Your task to perform on an android device: toggle pop-ups in chrome Image 0: 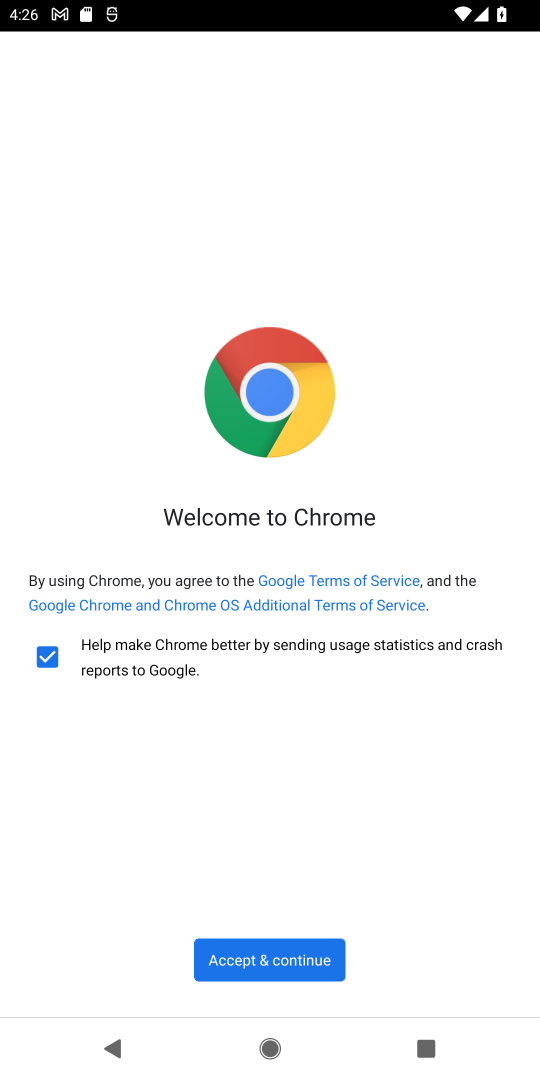
Step 0: click (295, 951)
Your task to perform on an android device: toggle pop-ups in chrome Image 1: 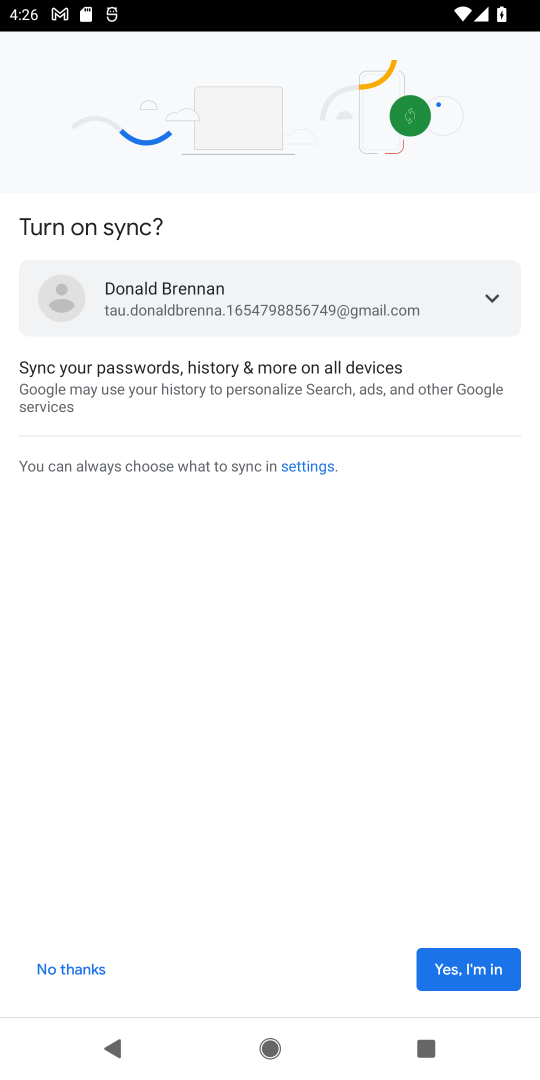
Step 1: click (456, 979)
Your task to perform on an android device: toggle pop-ups in chrome Image 2: 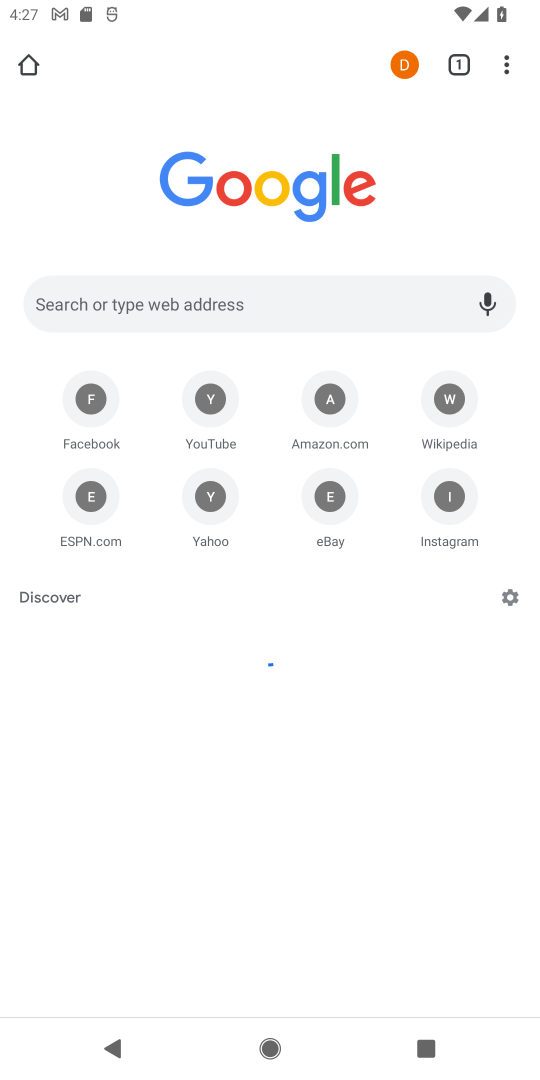
Step 2: click (504, 54)
Your task to perform on an android device: toggle pop-ups in chrome Image 3: 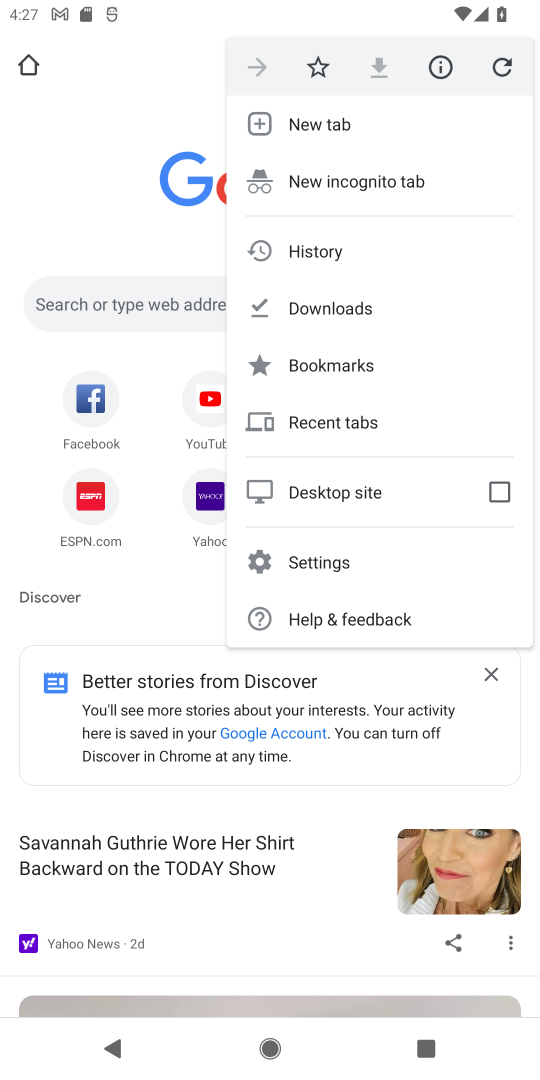
Step 3: click (284, 555)
Your task to perform on an android device: toggle pop-ups in chrome Image 4: 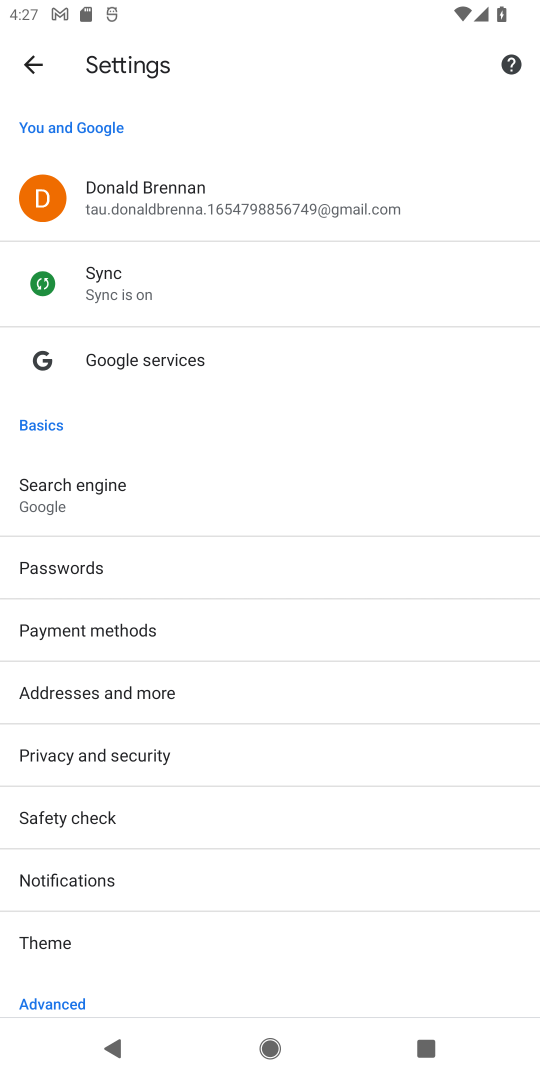
Step 4: drag from (157, 918) to (113, 518)
Your task to perform on an android device: toggle pop-ups in chrome Image 5: 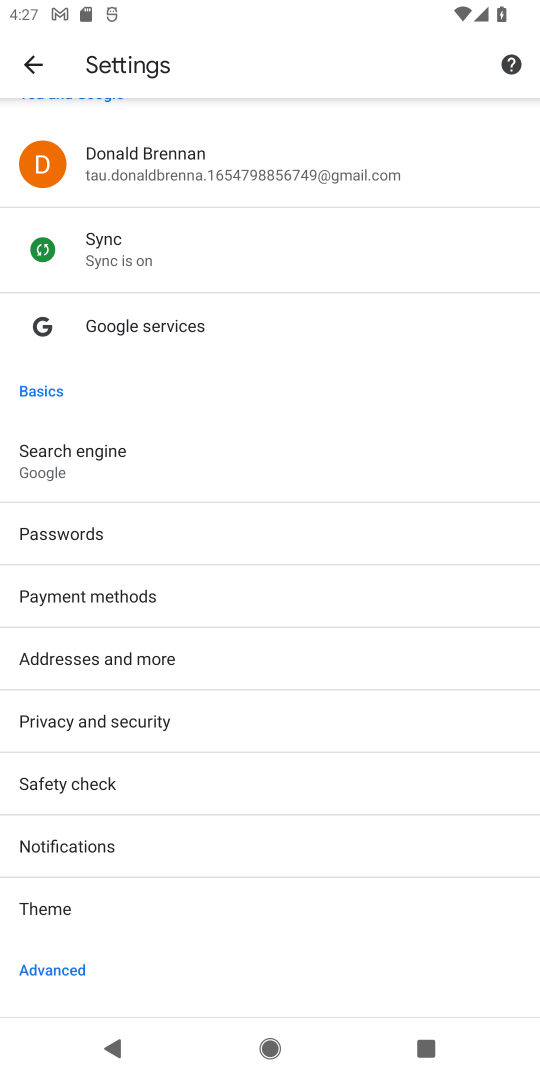
Step 5: drag from (135, 946) to (135, 243)
Your task to perform on an android device: toggle pop-ups in chrome Image 6: 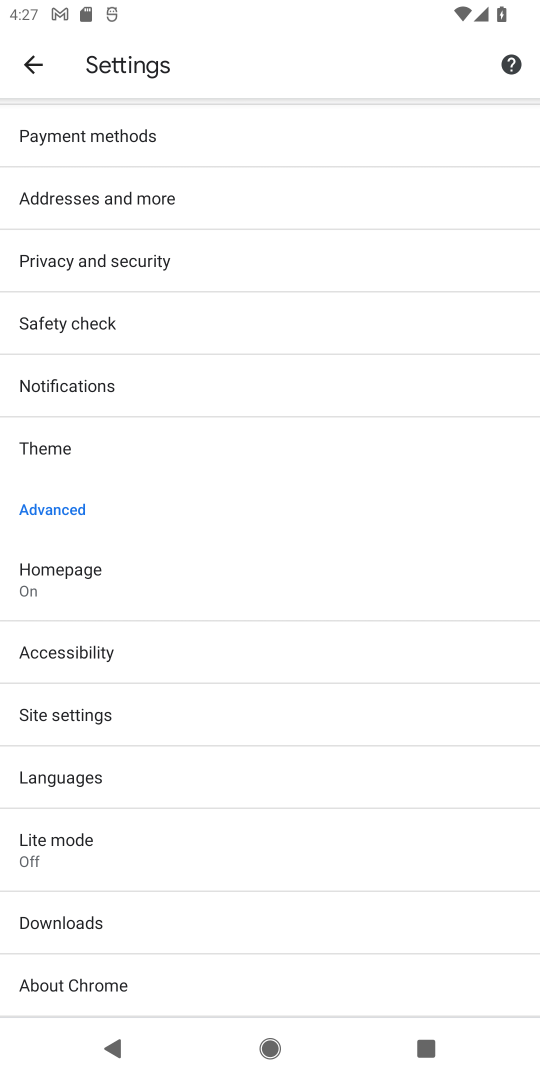
Step 6: click (165, 722)
Your task to perform on an android device: toggle pop-ups in chrome Image 7: 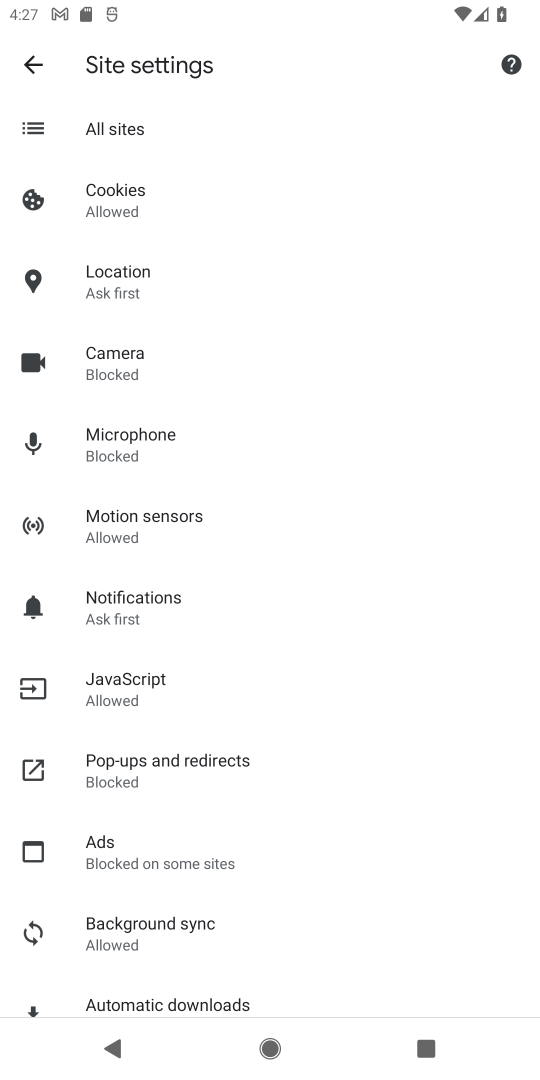
Step 7: click (161, 764)
Your task to perform on an android device: toggle pop-ups in chrome Image 8: 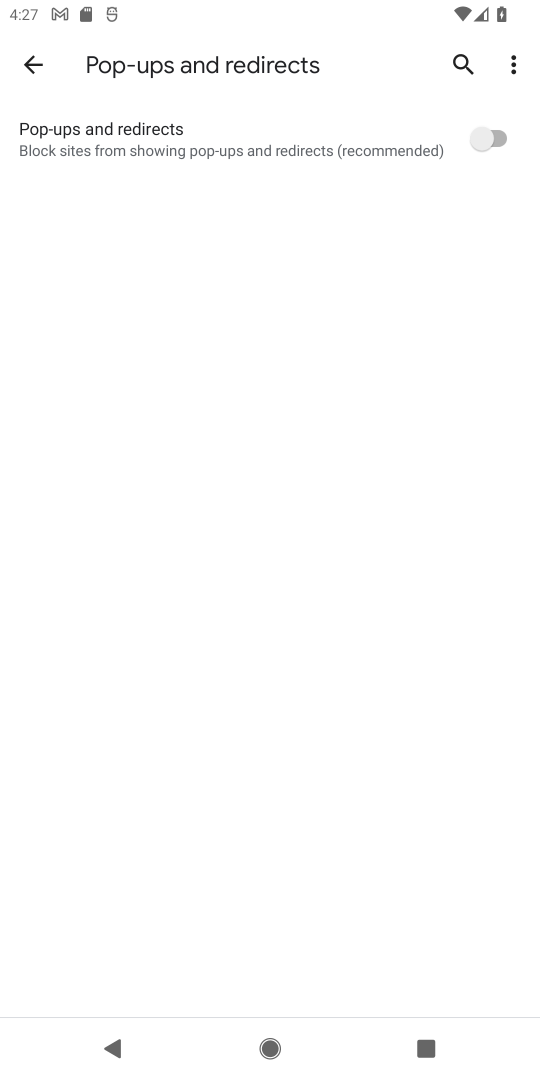
Step 8: click (493, 144)
Your task to perform on an android device: toggle pop-ups in chrome Image 9: 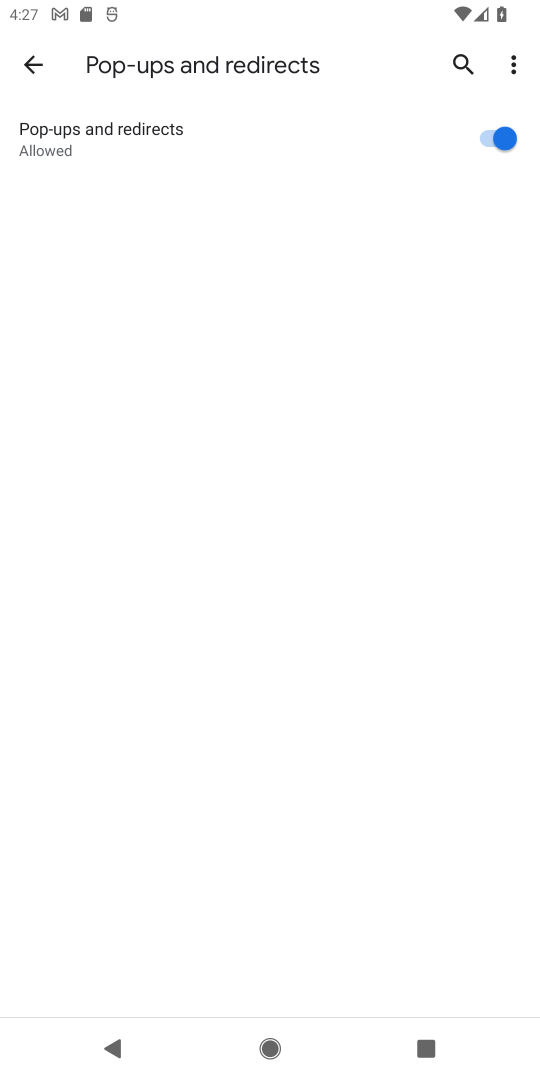
Step 9: task complete